Your task to perform on an android device: turn on improve location accuracy Image 0: 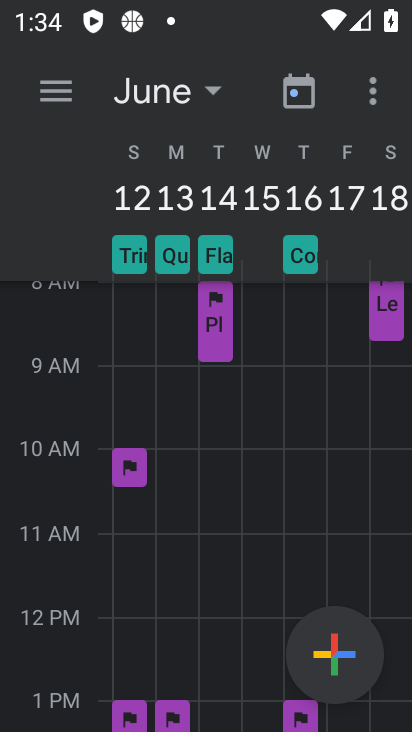
Step 0: press back button
Your task to perform on an android device: turn on improve location accuracy Image 1: 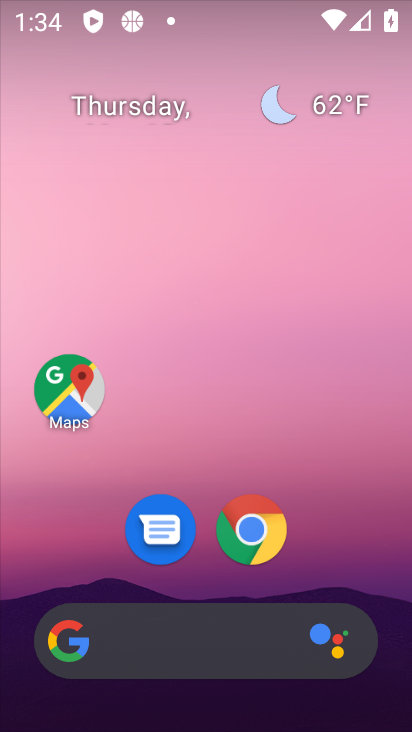
Step 1: drag from (291, 460) to (239, 91)
Your task to perform on an android device: turn on improve location accuracy Image 2: 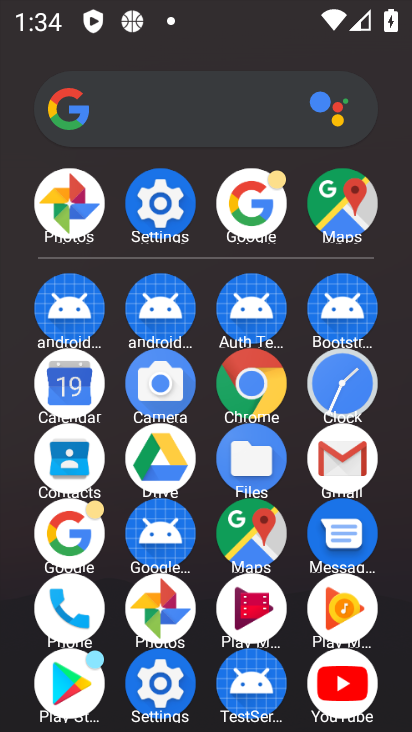
Step 2: click (165, 203)
Your task to perform on an android device: turn on improve location accuracy Image 3: 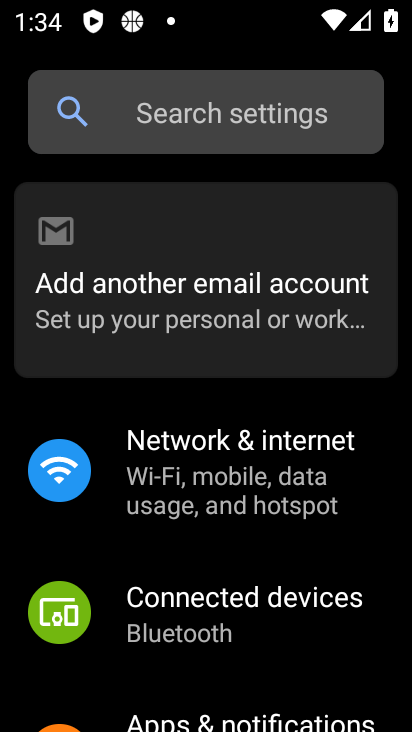
Step 3: drag from (211, 549) to (296, 400)
Your task to perform on an android device: turn on improve location accuracy Image 4: 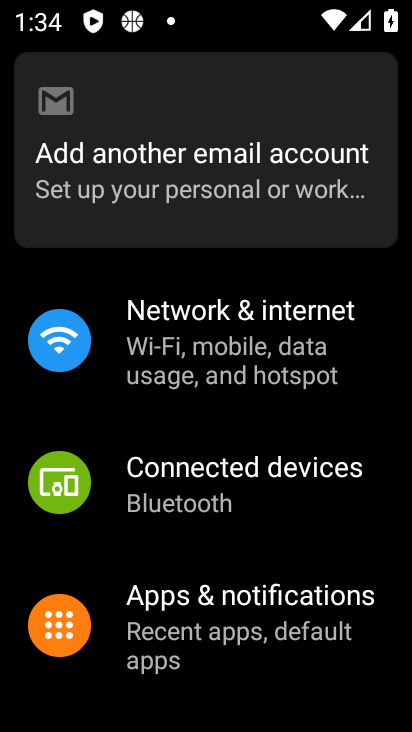
Step 4: drag from (209, 556) to (285, 421)
Your task to perform on an android device: turn on improve location accuracy Image 5: 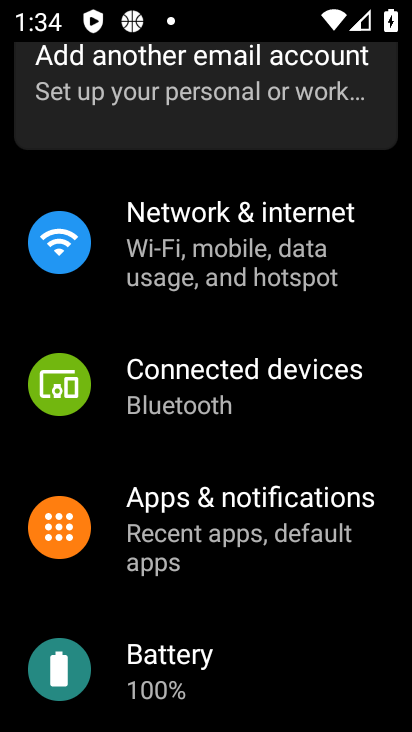
Step 5: drag from (225, 520) to (312, 386)
Your task to perform on an android device: turn on improve location accuracy Image 6: 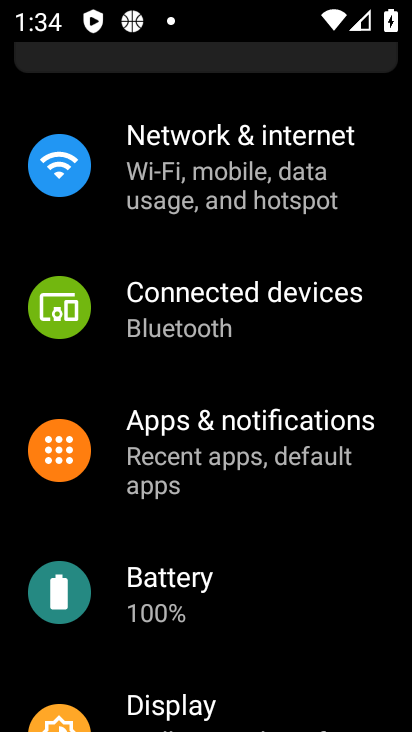
Step 6: drag from (205, 641) to (325, 339)
Your task to perform on an android device: turn on improve location accuracy Image 7: 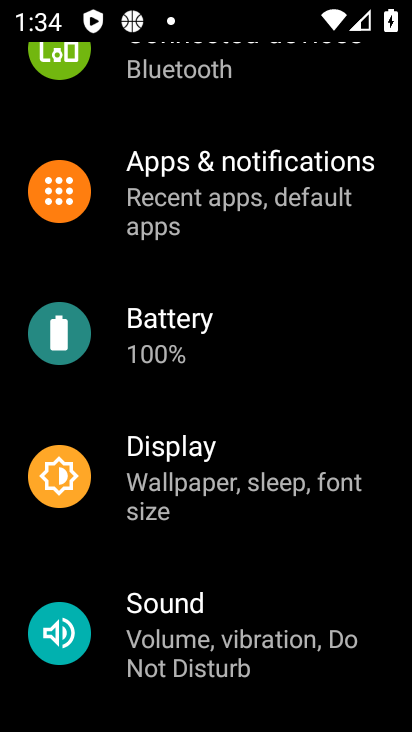
Step 7: drag from (194, 566) to (295, 394)
Your task to perform on an android device: turn on improve location accuracy Image 8: 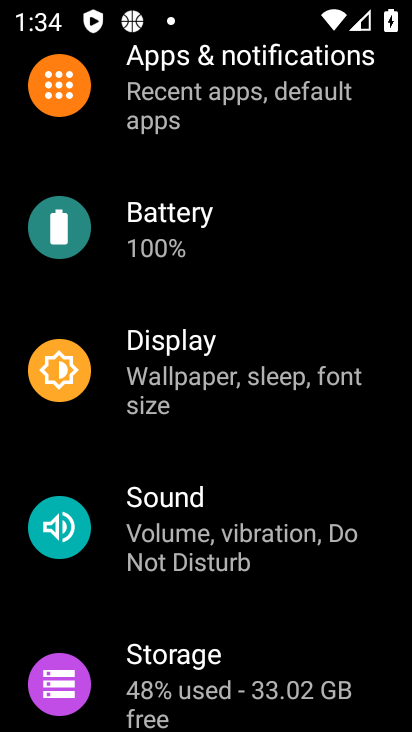
Step 8: drag from (168, 588) to (317, 326)
Your task to perform on an android device: turn on improve location accuracy Image 9: 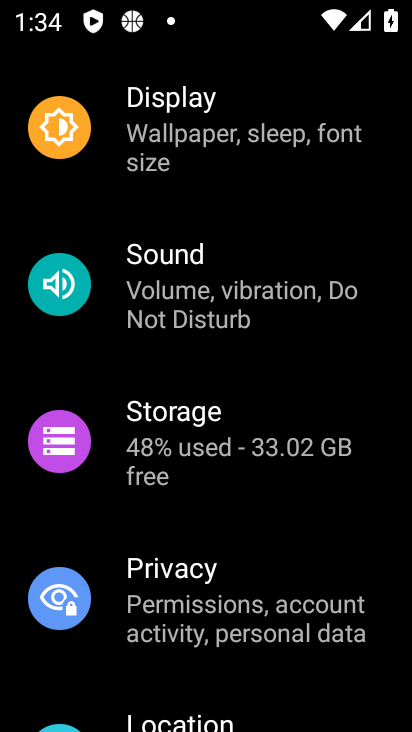
Step 9: drag from (171, 532) to (290, 345)
Your task to perform on an android device: turn on improve location accuracy Image 10: 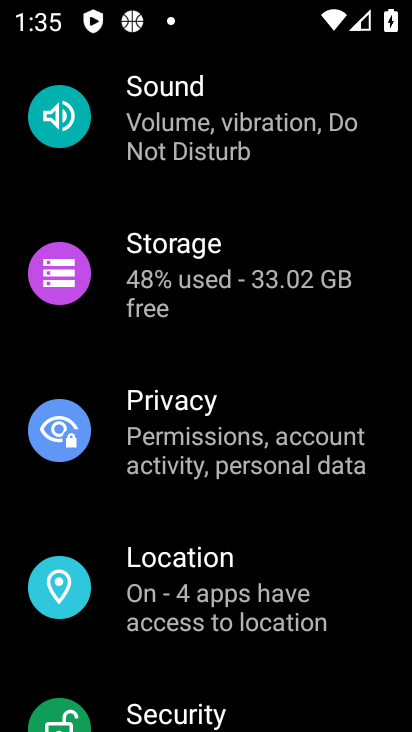
Step 10: click (166, 558)
Your task to perform on an android device: turn on improve location accuracy Image 11: 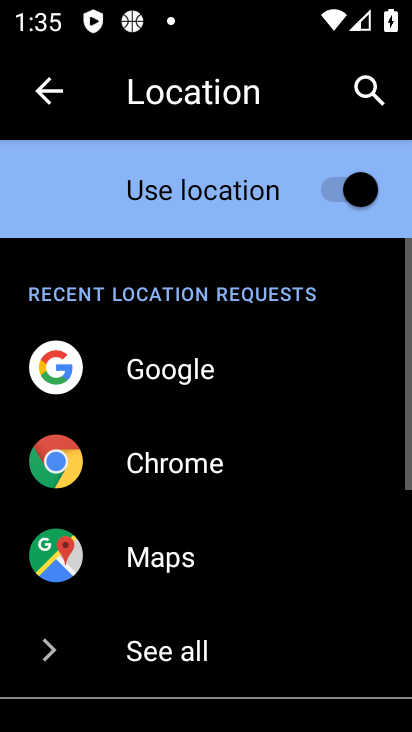
Step 11: drag from (251, 653) to (312, 477)
Your task to perform on an android device: turn on improve location accuracy Image 12: 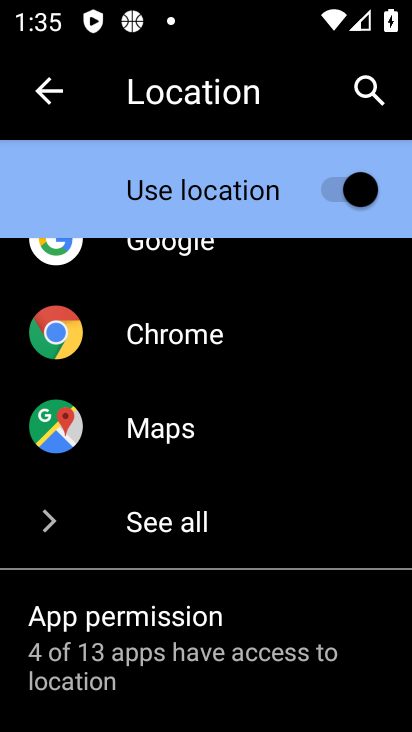
Step 12: drag from (193, 680) to (278, 514)
Your task to perform on an android device: turn on improve location accuracy Image 13: 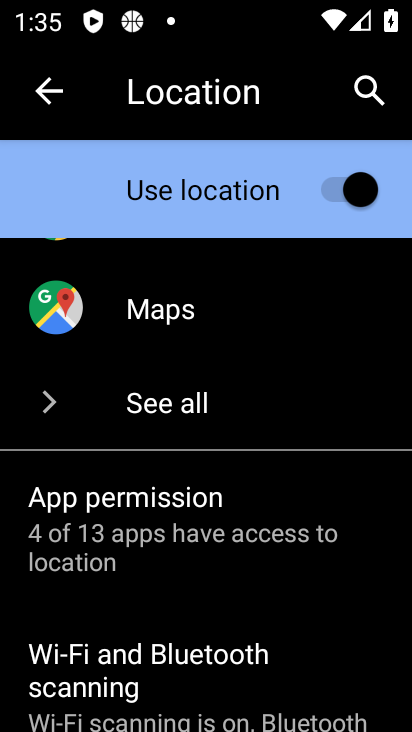
Step 13: drag from (213, 687) to (329, 467)
Your task to perform on an android device: turn on improve location accuracy Image 14: 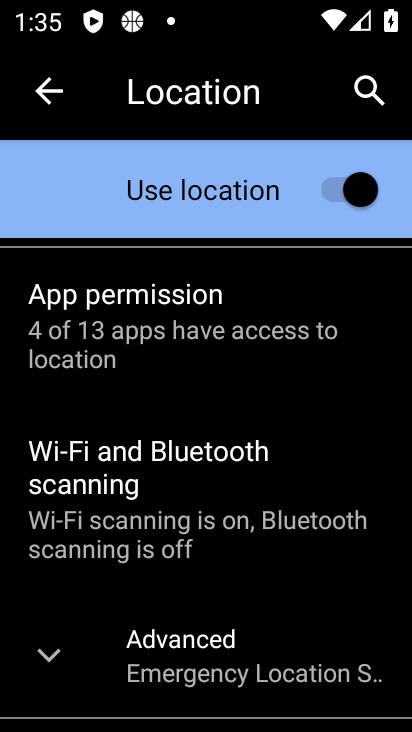
Step 14: drag from (220, 574) to (285, 445)
Your task to perform on an android device: turn on improve location accuracy Image 15: 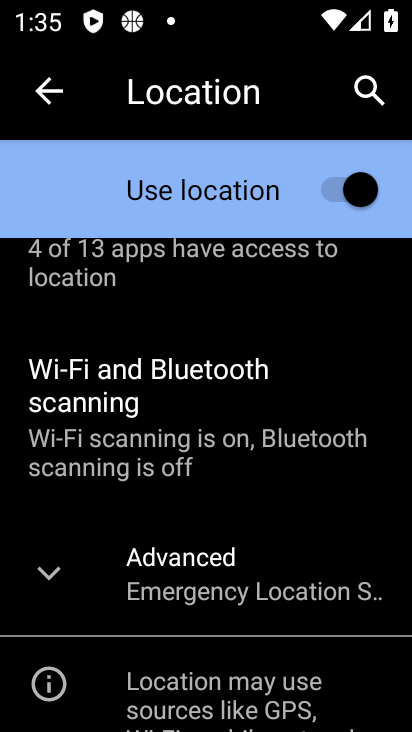
Step 15: click (191, 573)
Your task to perform on an android device: turn on improve location accuracy Image 16: 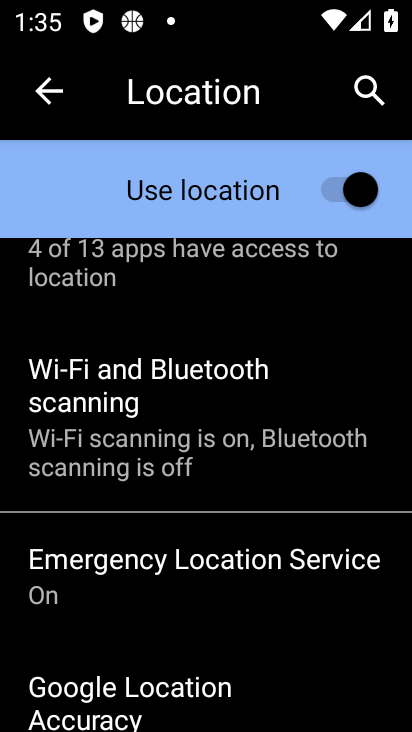
Step 16: drag from (163, 632) to (263, 465)
Your task to perform on an android device: turn on improve location accuracy Image 17: 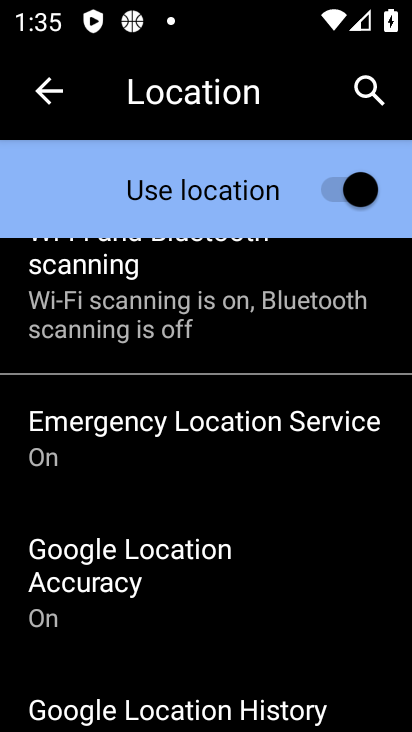
Step 17: click (169, 555)
Your task to perform on an android device: turn on improve location accuracy Image 18: 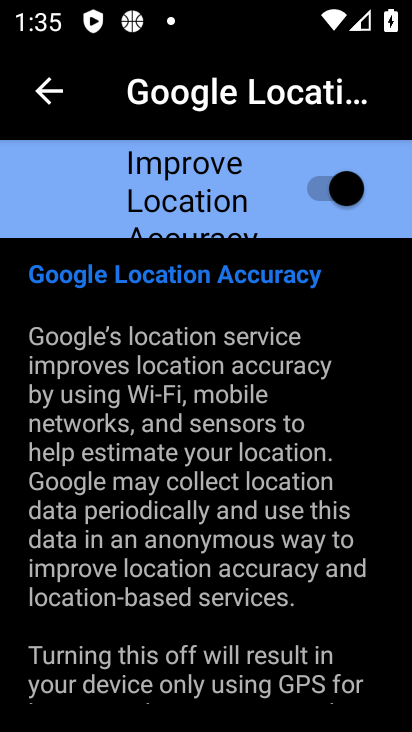
Step 18: task complete